Your task to perform on an android device: turn off location Image 0: 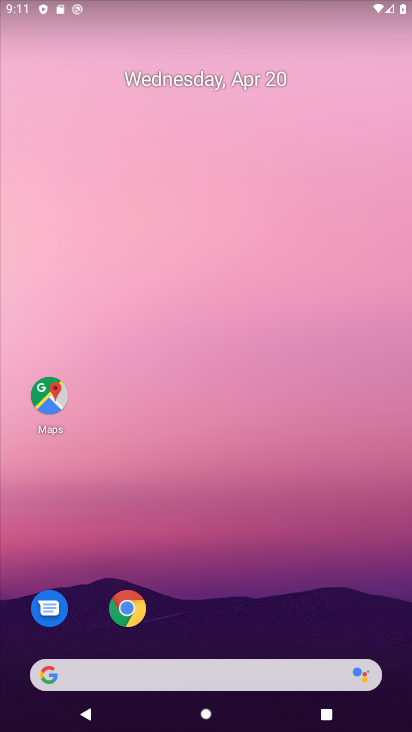
Step 0: drag from (208, 628) to (353, 24)
Your task to perform on an android device: turn off location Image 1: 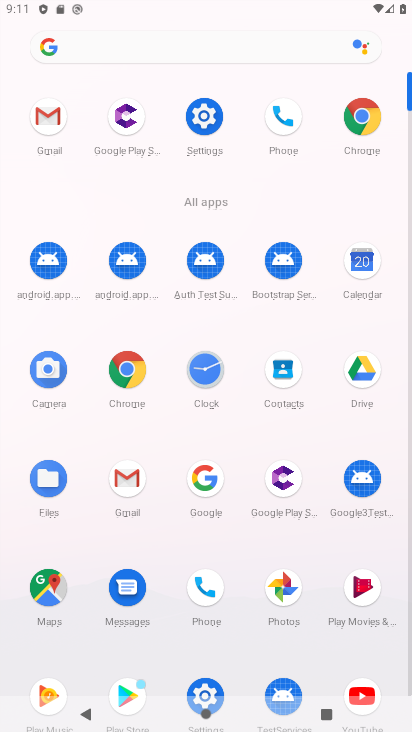
Step 1: click (199, 686)
Your task to perform on an android device: turn off location Image 2: 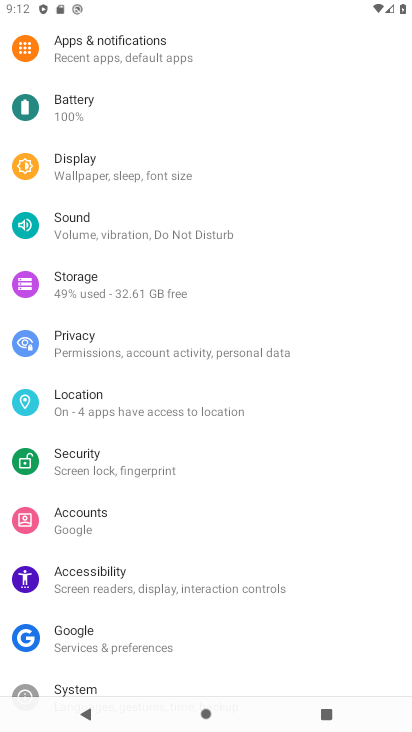
Step 2: click (89, 411)
Your task to perform on an android device: turn off location Image 3: 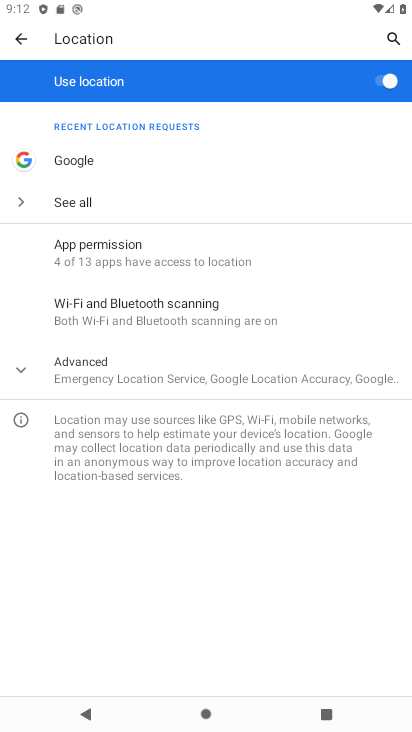
Step 3: click (371, 82)
Your task to perform on an android device: turn off location Image 4: 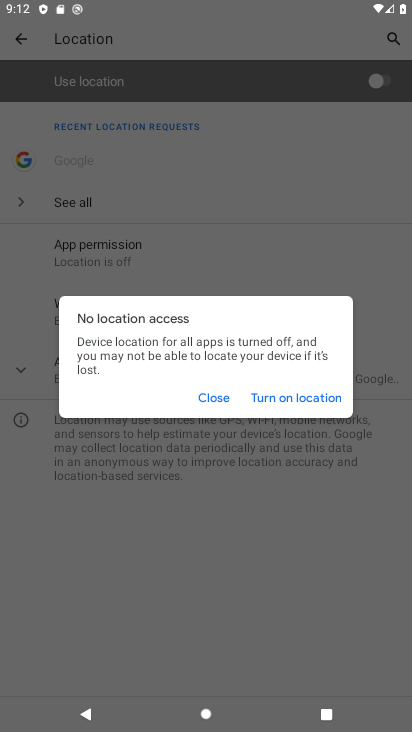
Step 4: click (220, 401)
Your task to perform on an android device: turn off location Image 5: 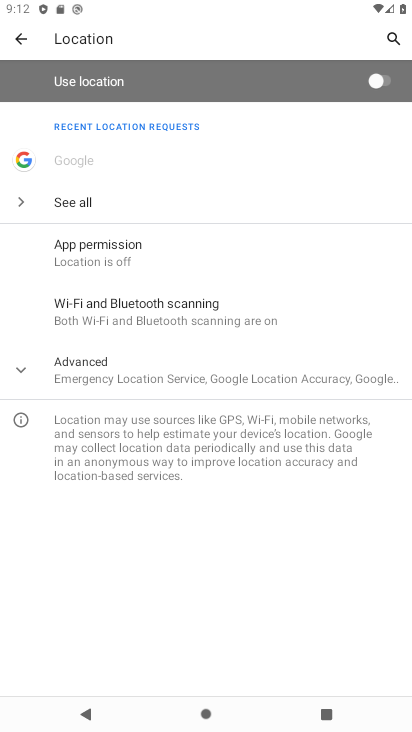
Step 5: task complete